Your task to perform on an android device: empty trash in google photos Image 0: 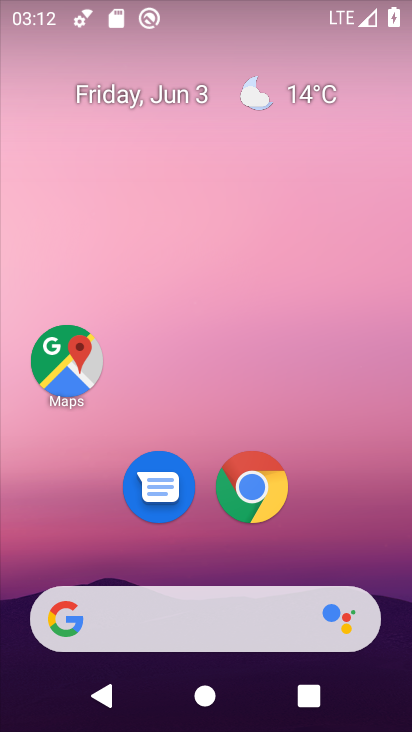
Step 0: drag from (354, 503) to (287, 2)
Your task to perform on an android device: empty trash in google photos Image 1: 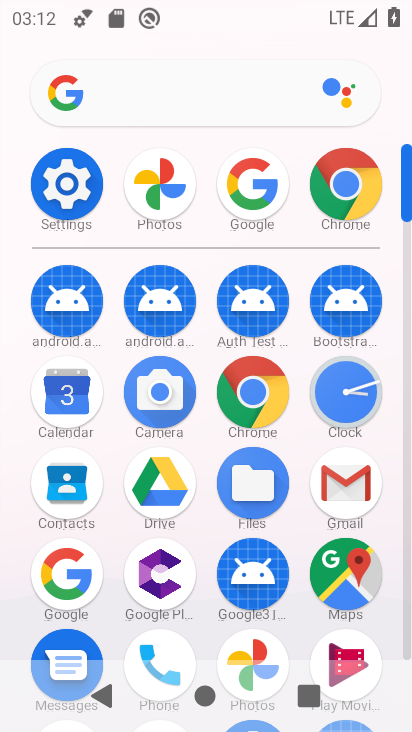
Step 1: click (248, 662)
Your task to perform on an android device: empty trash in google photos Image 2: 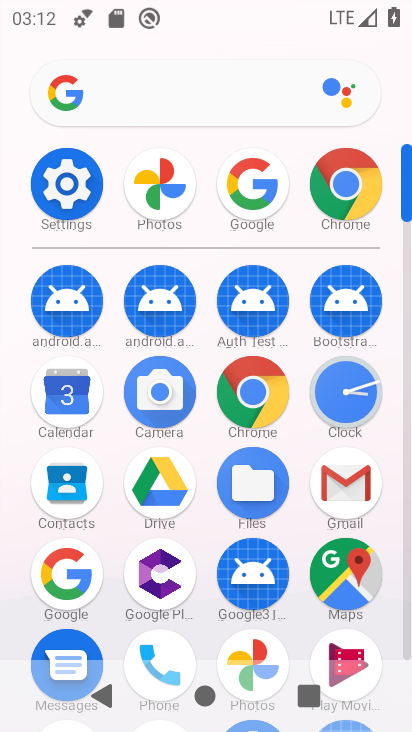
Step 2: click (264, 675)
Your task to perform on an android device: empty trash in google photos Image 3: 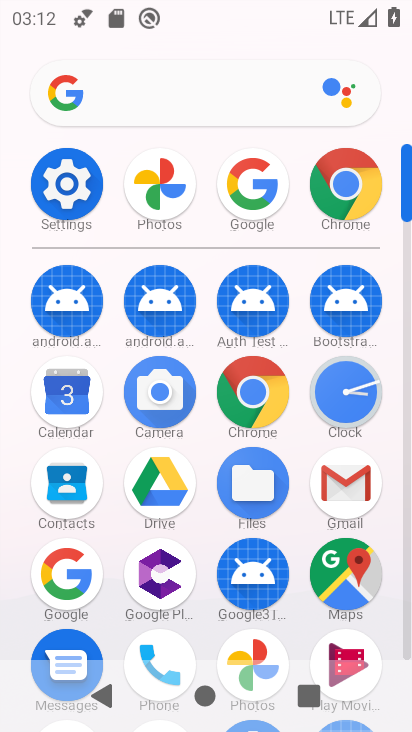
Step 3: click (275, 655)
Your task to perform on an android device: empty trash in google photos Image 4: 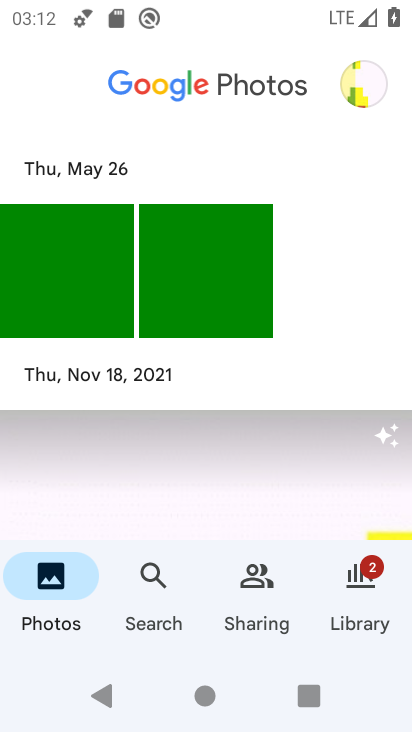
Step 4: click (368, 606)
Your task to perform on an android device: empty trash in google photos Image 5: 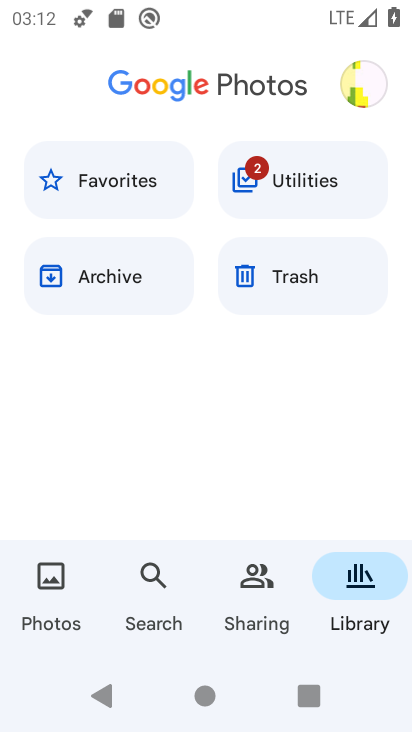
Step 5: click (307, 264)
Your task to perform on an android device: empty trash in google photos Image 6: 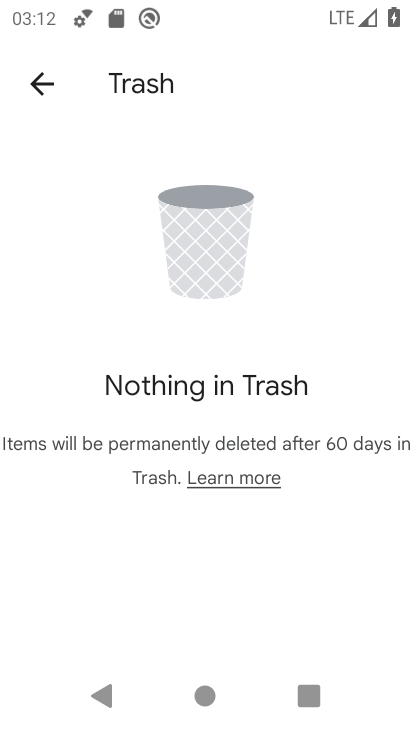
Step 6: task complete